Your task to perform on an android device: Search for the best rated wireless headphones on Amazon. Image 0: 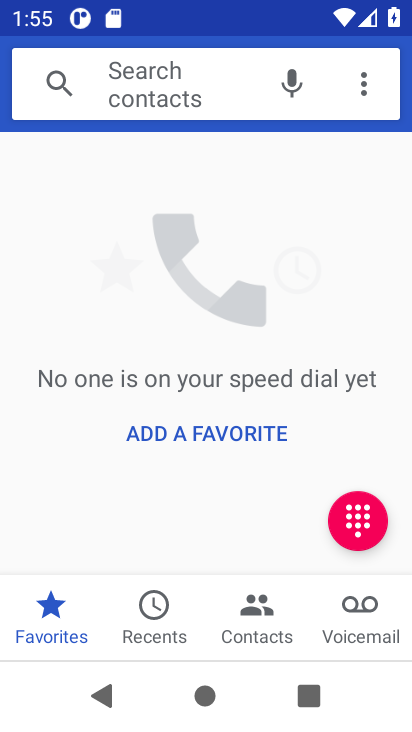
Step 0: press back button
Your task to perform on an android device: Search for the best rated wireless headphones on Amazon. Image 1: 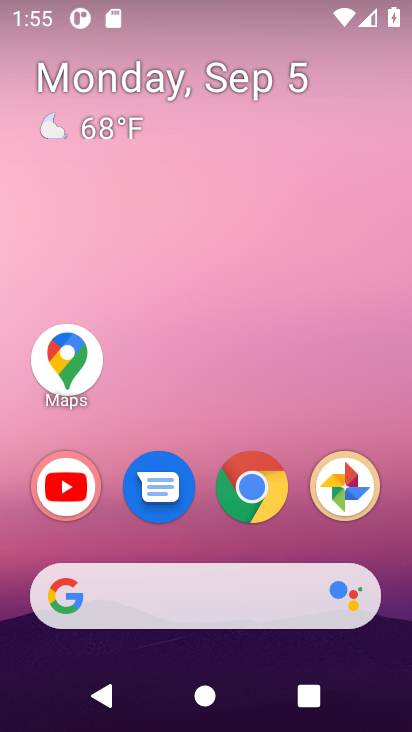
Step 1: click (248, 464)
Your task to perform on an android device: Search for the best rated wireless headphones on Amazon. Image 2: 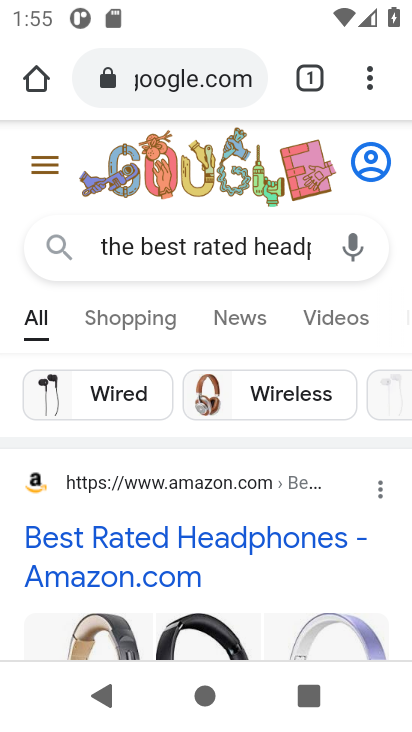
Step 2: click (165, 62)
Your task to perform on an android device: Search for the best rated wireless headphones on Amazon. Image 3: 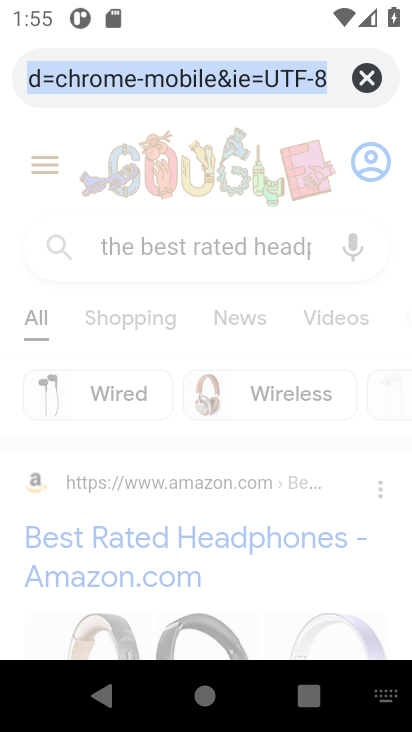
Step 3: click (375, 76)
Your task to perform on an android device: Search for the best rated wireless headphones on Amazon. Image 4: 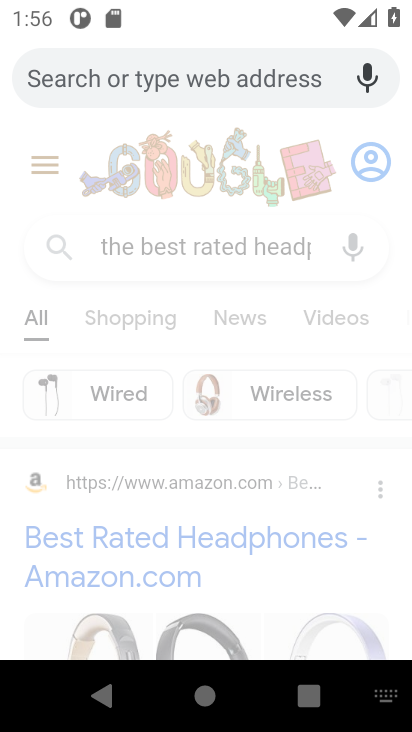
Step 4: type "the best rated wireless headphones on Amazon."
Your task to perform on an android device: Search for the best rated wireless headphones on Amazon. Image 5: 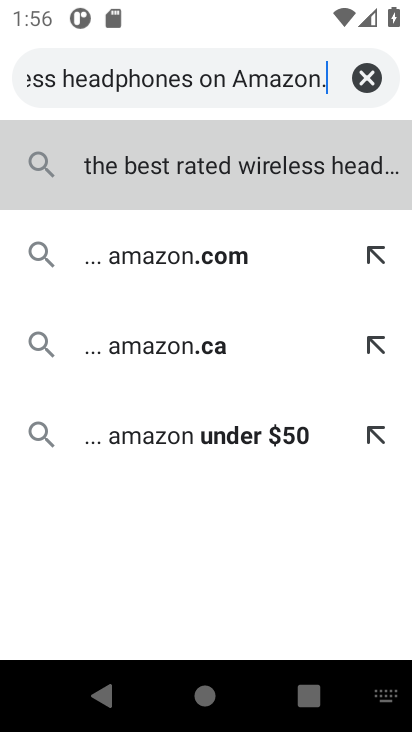
Step 5: click (345, 178)
Your task to perform on an android device: Search for the best rated wireless headphones on Amazon. Image 6: 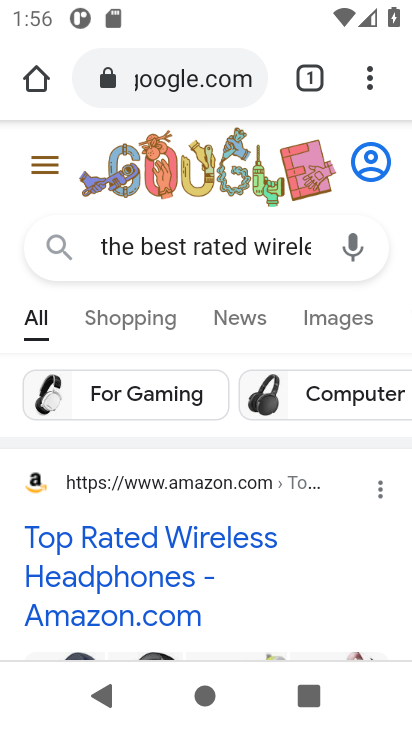
Step 6: task complete